Your task to perform on an android device: change alarm snooze length Image 0: 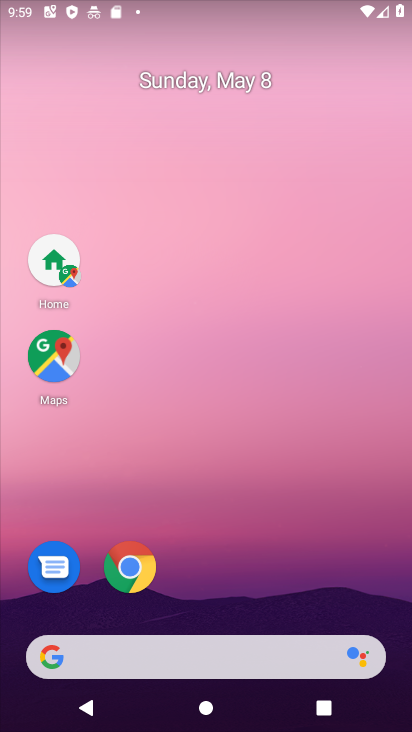
Step 0: drag from (301, 617) to (58, 47)
Your task to perform on an android device: change alarm snooze length Image 1: 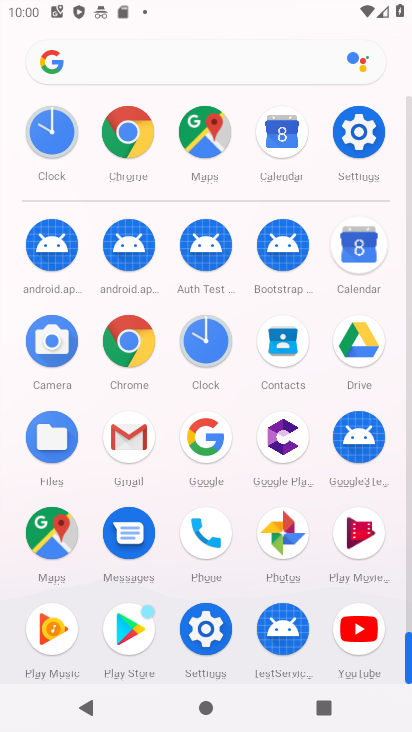
Step 1: click (204, 340)
Your task to perform on an android device: change alarm snooze length Image 2: 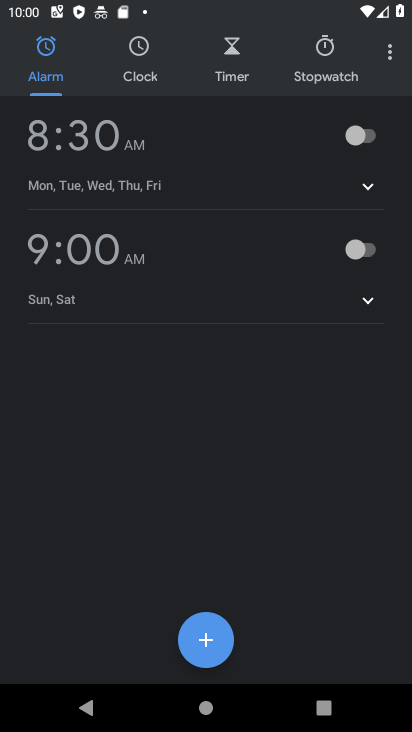
Step 2: click (385, 55)
Your task to perform on an android device: change alarm snooze length Image 3: 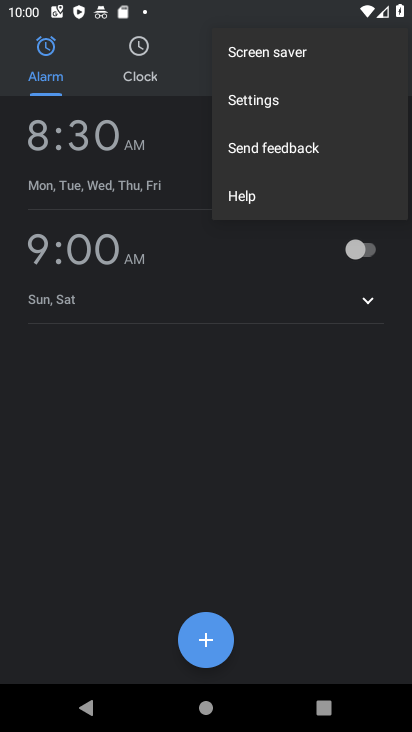
Step 3: click (383, 56)
Your task to perform on an android device: change alarm snooze length Image 4: 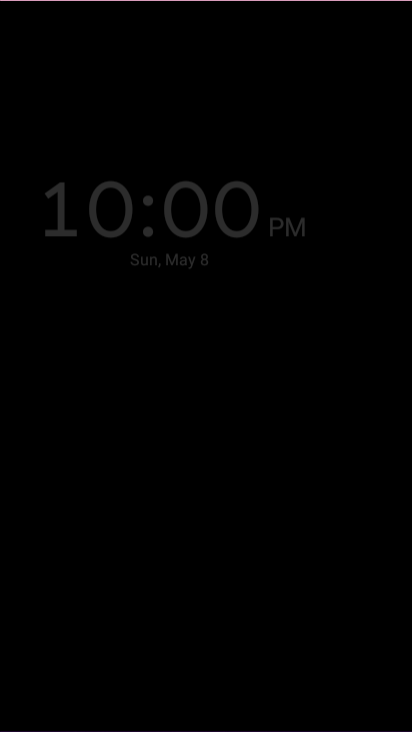
Step 4: click (267, 98)
Your task to perform on an android device: change alarm snooze length Image 5: 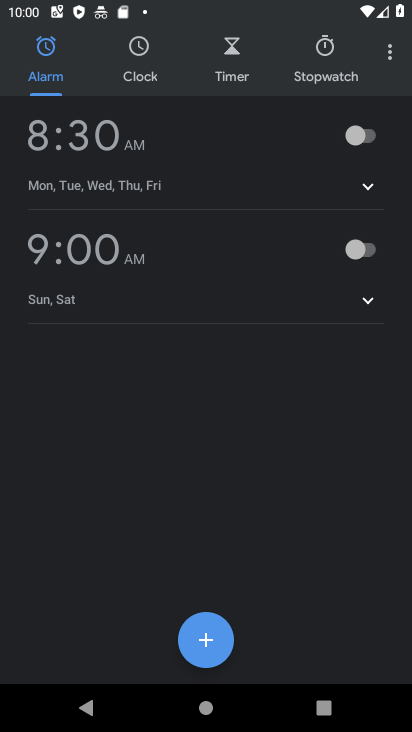
Step 5: click (391, 50)
Your task to perform on an android device: change alarm snooze length Image 6: 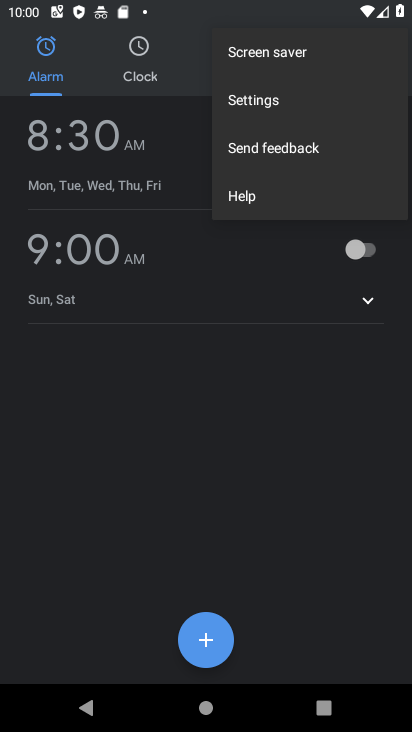
Step 6: click (246, 106)
Your task to perform on an android device: change alarm snooze length Image 7: 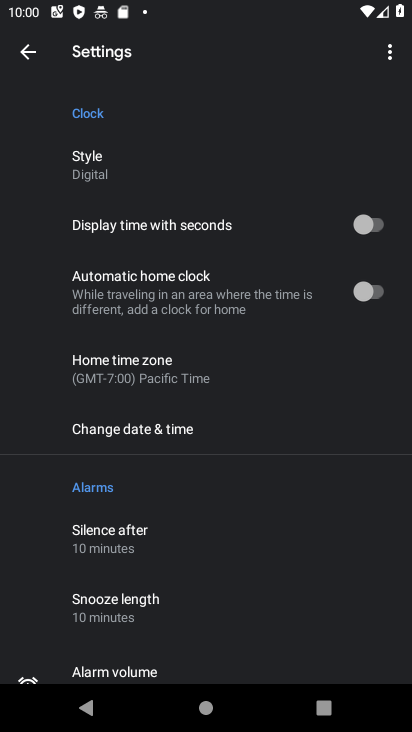
Step 7: drag from (174, 605) to (227, 212)
Your task to perform on an android device: change alarm snooze length Image 8: 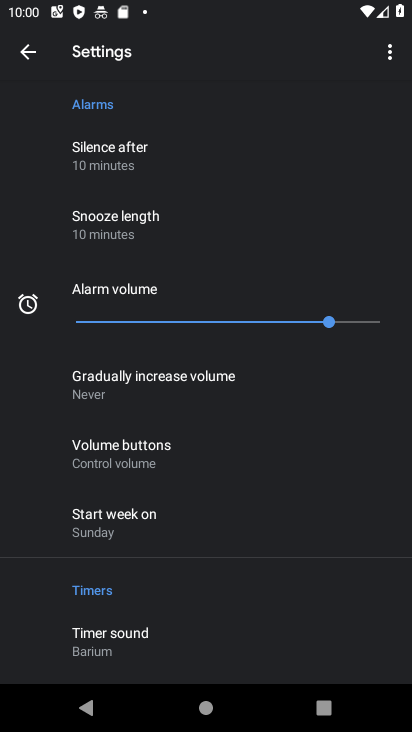
Step 8: drag from (176, 592) to (175, 91)
Your task to perform on an android device: change alarm snooze length Image 9: 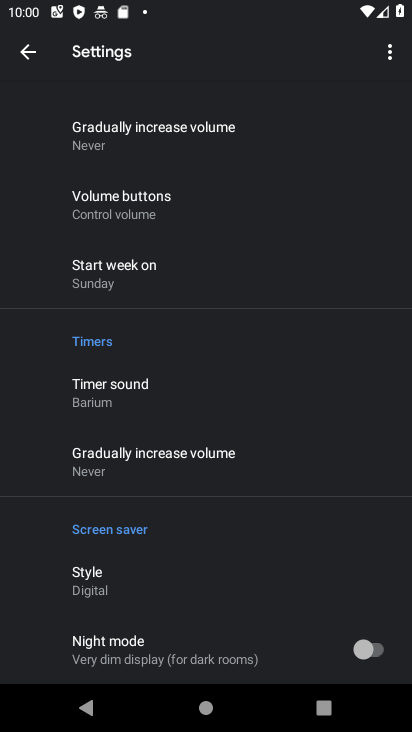
Step 9: drag from (170, 557) to (225, 70)
Your task to perform on an android device: change alarm snooze length Image 10: 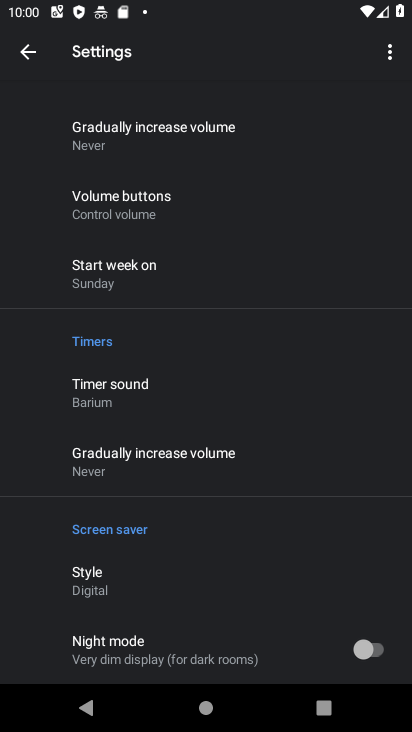
Step 10: drag from (142, 171) to (140, 607)
Your task to perform on an android device: change alarm snooze length Image 11: 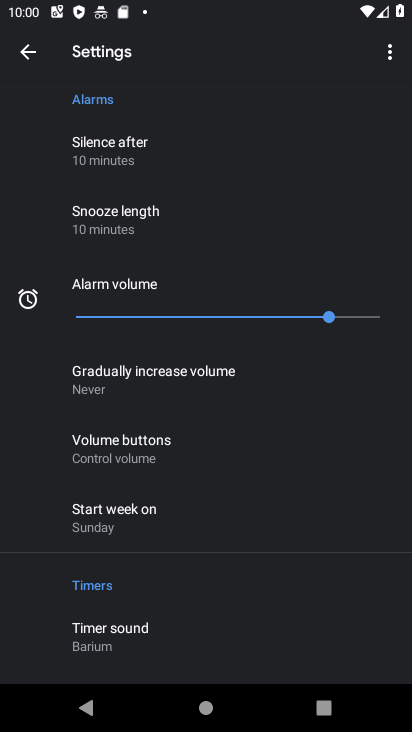
Step 11: click (125, 220)
Your task to perform on an android device: change alarm snooze length Image 12: 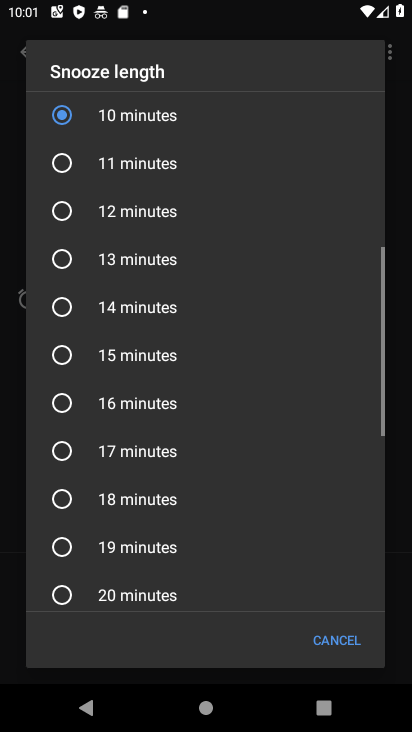
Step 12: click (64, 487)
Your task to perform on an android device: change alarm snooze length Image 13: 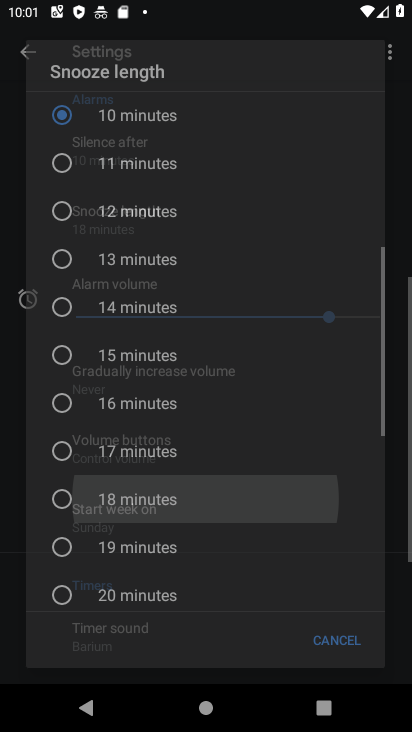
Step 13: click (61, 496)
Your task to perform on an android device: change alarm snooze length Image 14: 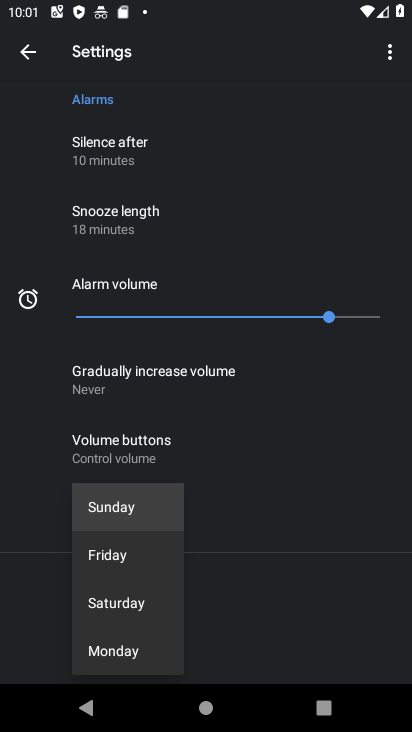
Step 14: click (296, 448)
Your task to perform on an android device: change alarm snooze length Image 15: 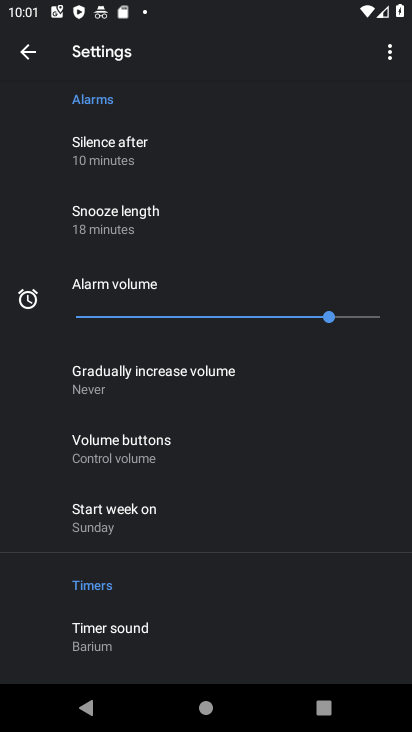
Step 15: task complete